Your task to perform on an android device: change the clock display to analog Image 0: 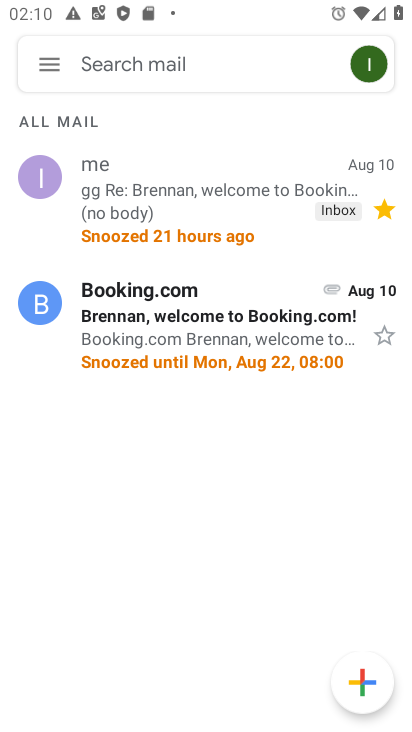
Step 0: press home button
Your task to perform on an android device: change the clock display to analog Image 1: 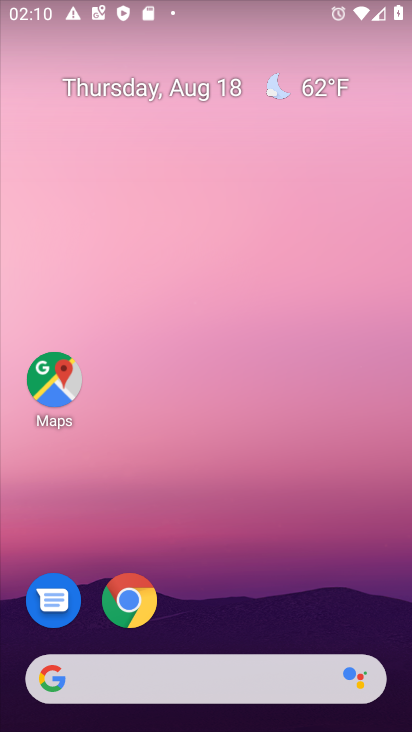
Step 1: drag from (259, 591) to (276, 53)
Your task to perform on an android device: change the clock display to analog Image 2: 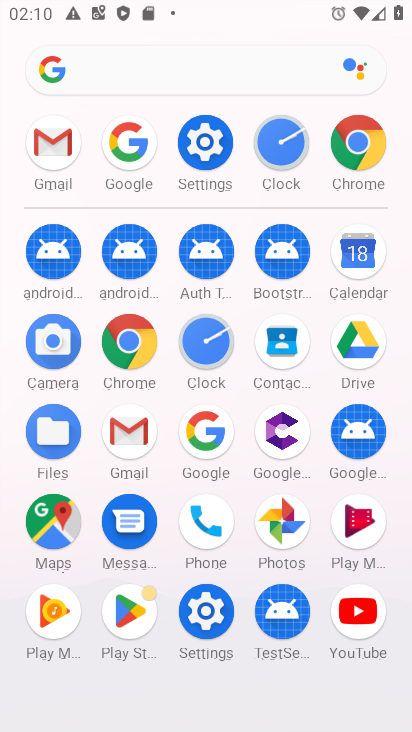
Step 2: click (288, 147)
Your task to perform on an android device: change the clock display to analog Image 3: 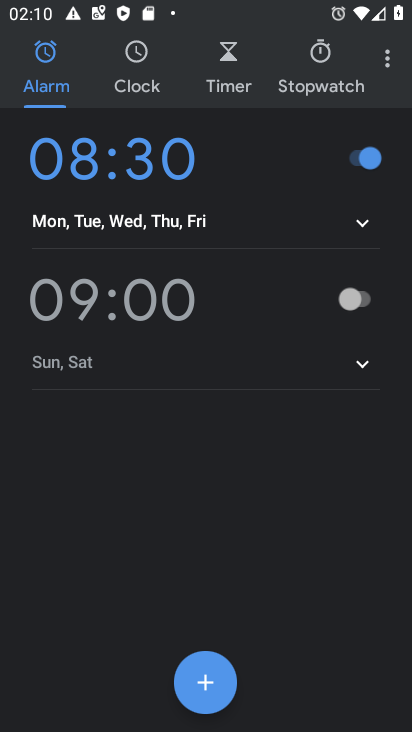
Step 3: click (388, 59)
Your task to perform on an android device: change the clock display to analog Image 4: 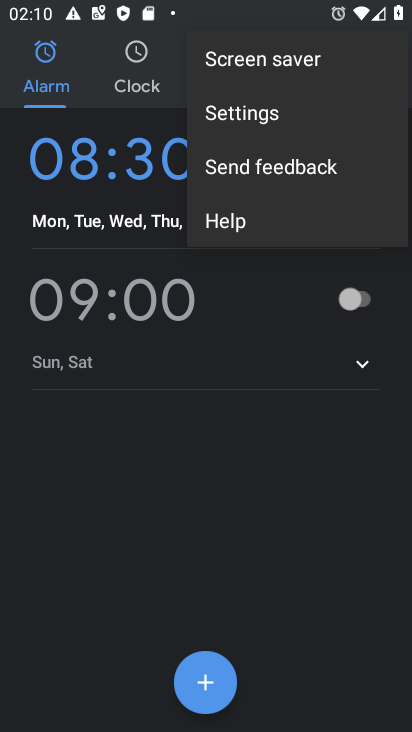
Step 4: click (272, 113)
Your task to perform on an android device: change the clock display to analog Image 5: 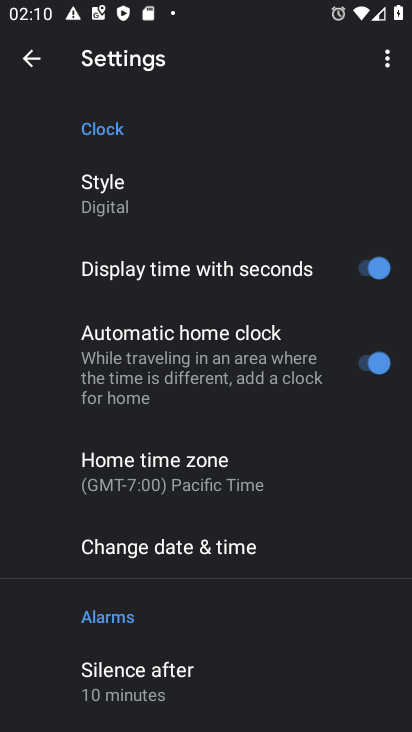
Step 5: click (128, 188)
Your task to perform on an android device: change the clock display to analog Image 6: 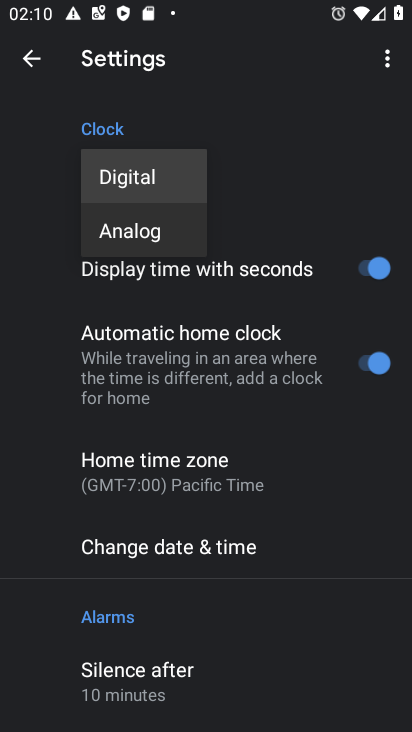
Step 6: click (138, 226)
Your task to perform on an android device: change the clock display to analog Image 7: 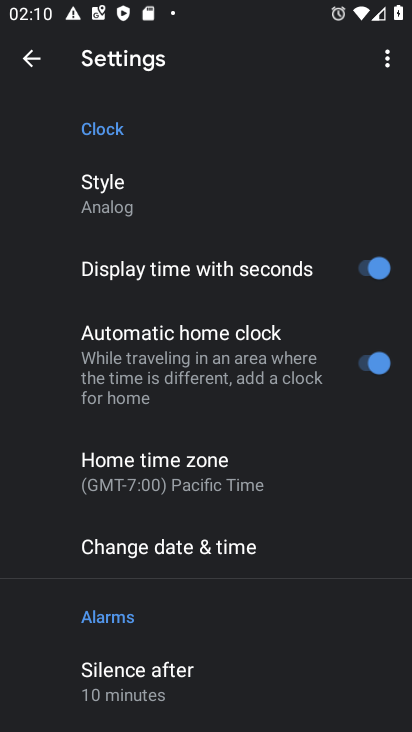
Step 7: task complete